Your task to perform on an android device: Is it going to rain today? Image 0: 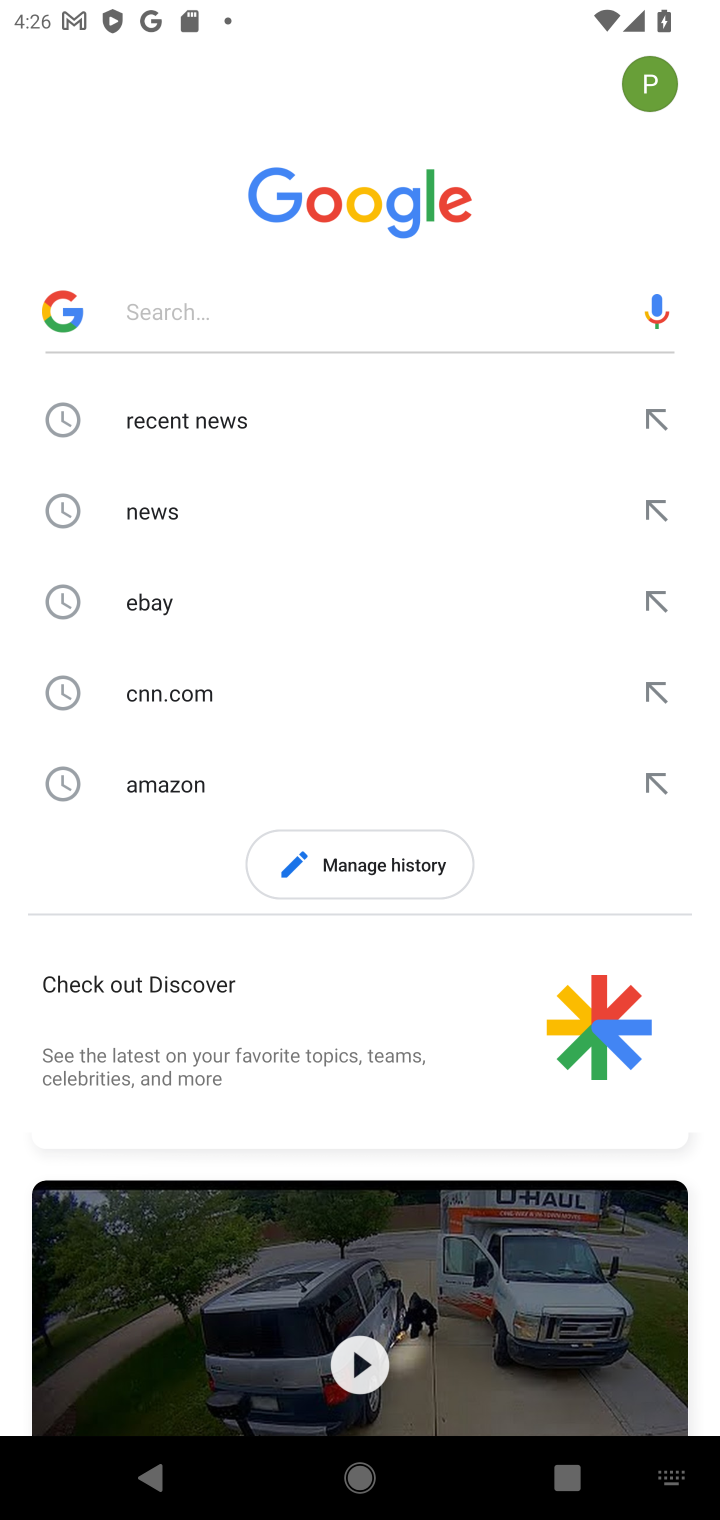
Step 0: click (263, 320)
Your task to perform on an android device: Is it going to rain today? Image 1: 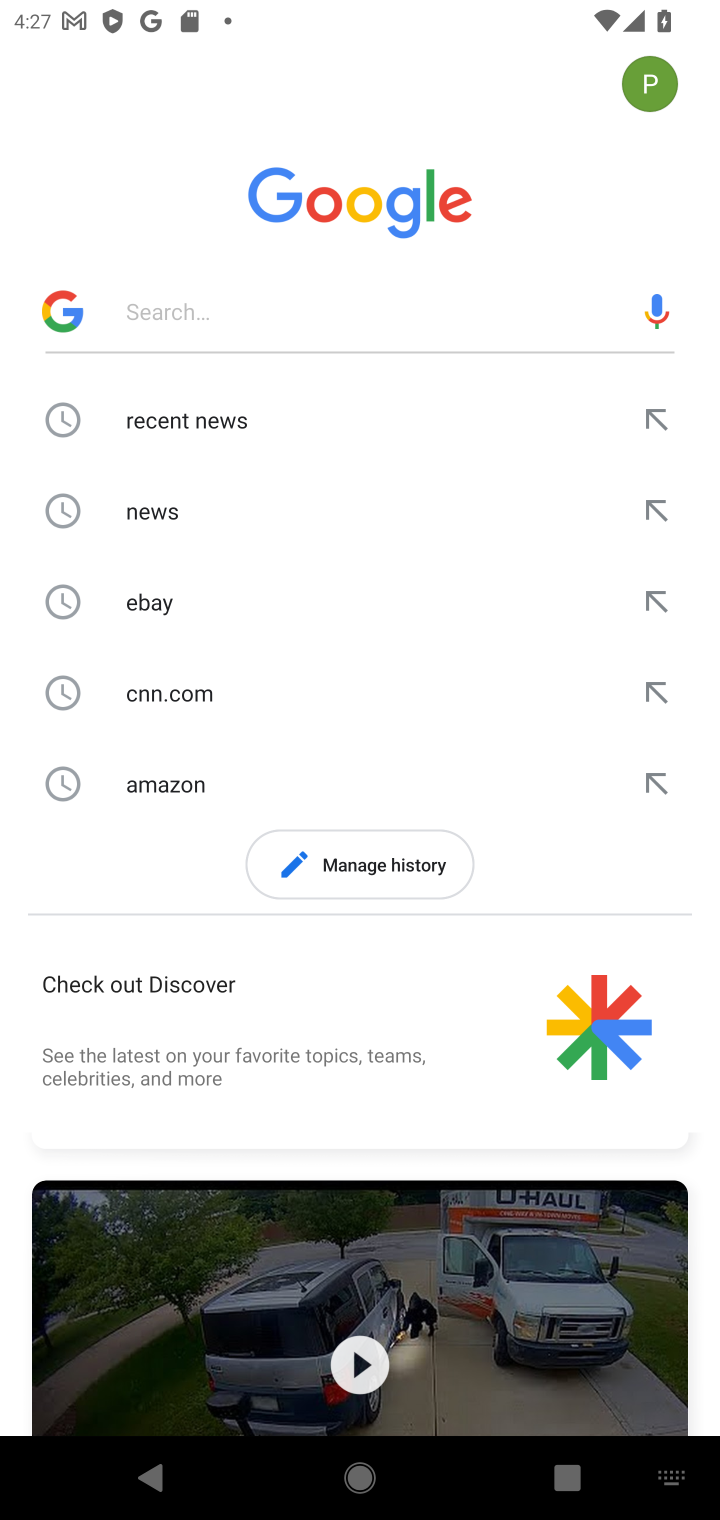
Step 1: type "weather"
Your task to perform on an android device: Is it going to rain today? Image 2: 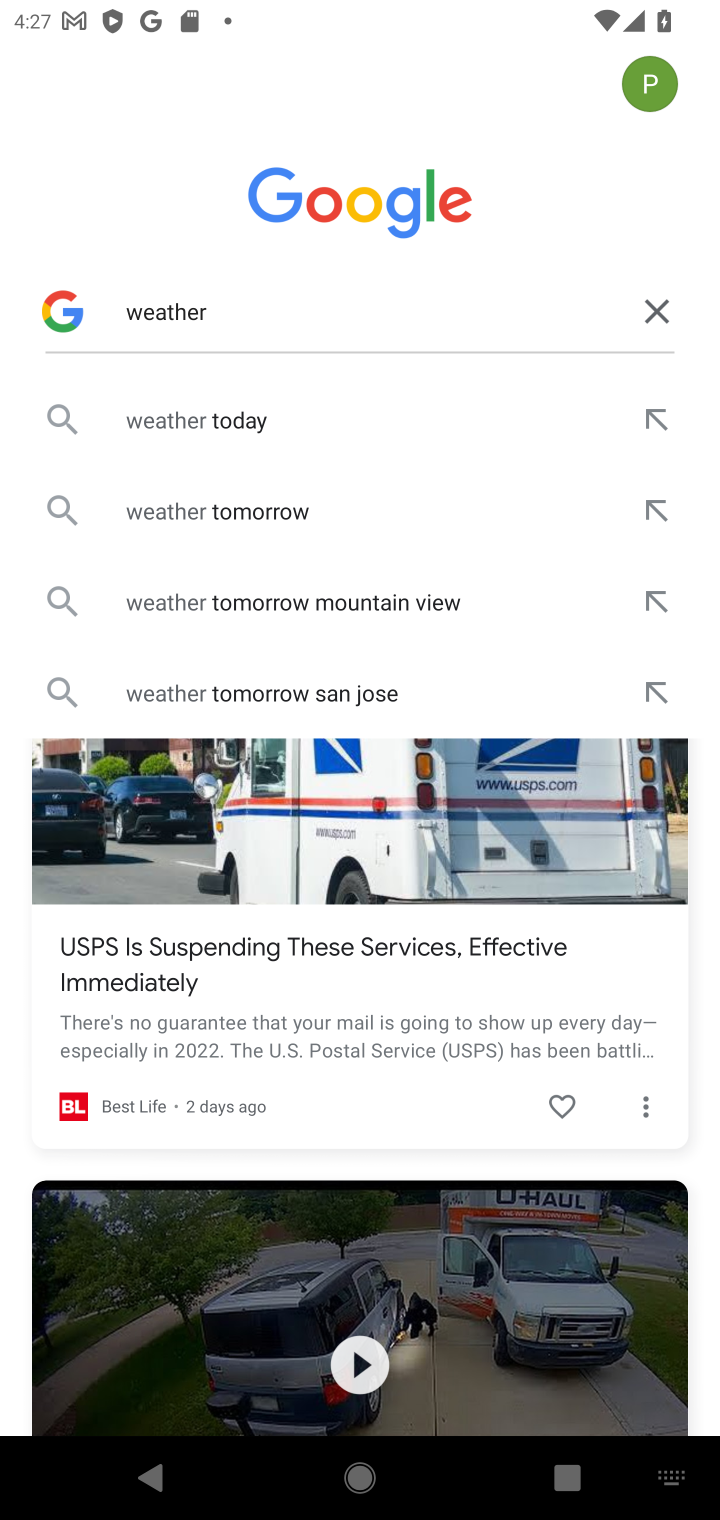
Step 2: click (256, 395)
Your task to perform on an android device: Is it going to rain today? Image 3: 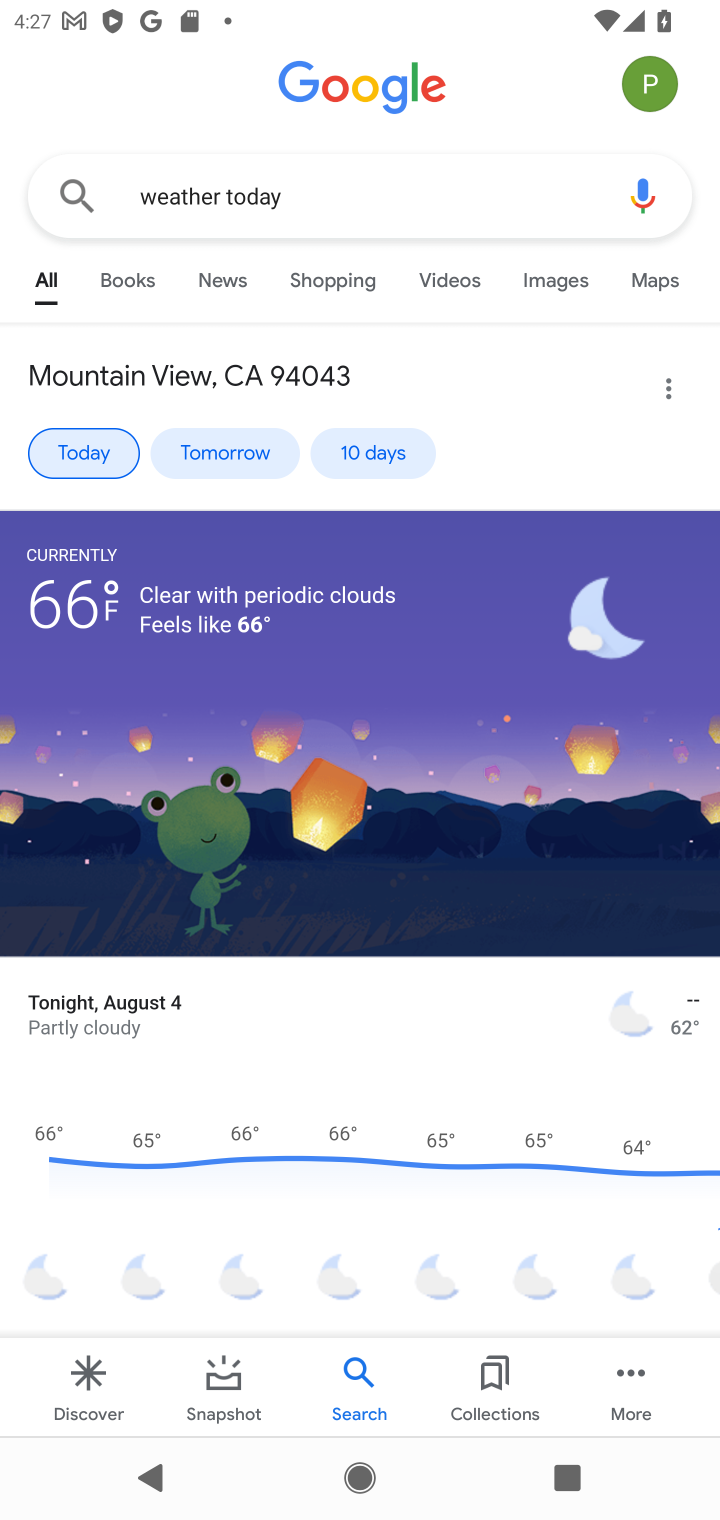
Step 3: task complete